Your task to perform on an android device: Open the calendar and show me this week's events? Image 0: 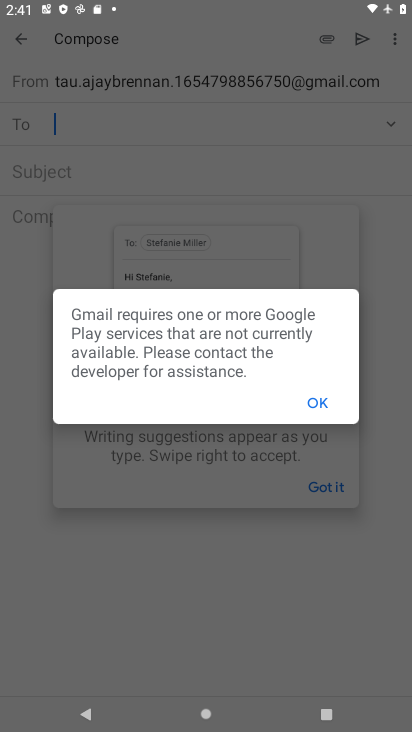
Step 0: press home button
Your task to perform on an android device: Open the calendar and show me this week's events? Image 1: 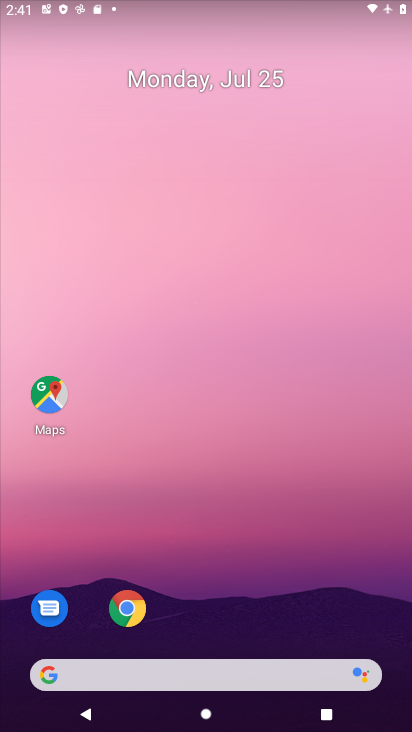
Step 1: drag from (164, 644) to (241, 191)
Your task to perform on an android device: Open the calendar and show me this week's events? Image 2: 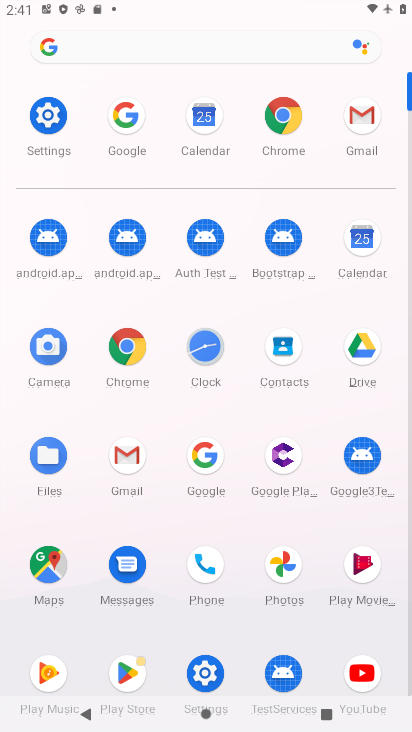
Step 2: click (373, 255)
Your task to perform on an android device: Open the calendar and show me this week's events? Image 3: 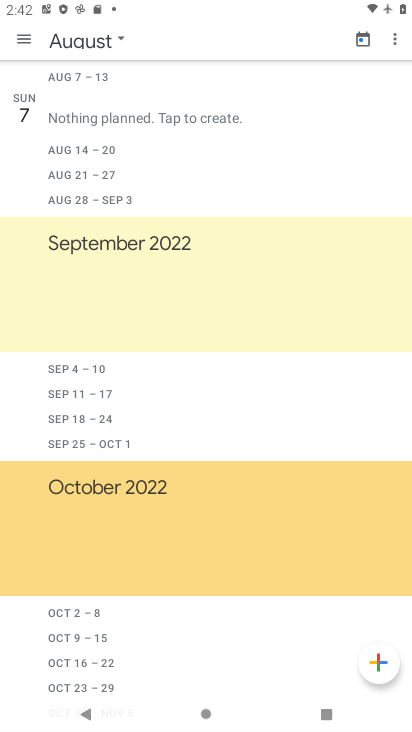
Step 3: click (101, 49)
Your task to perform on an android device: Open the calendar and show me this week's events? Image 4: 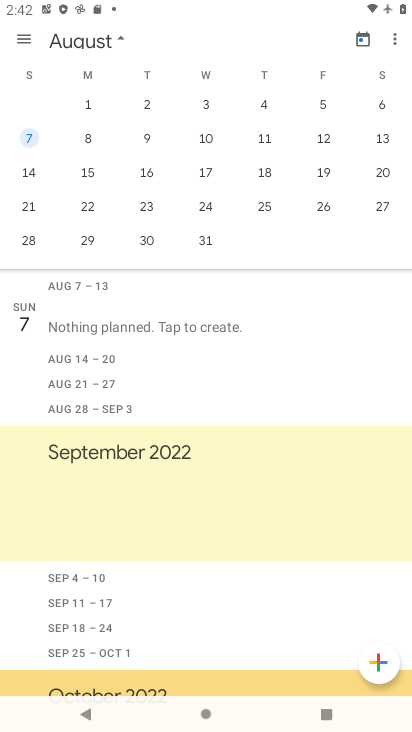
Step 4: task complete